Your task to perform on an android device: Look up the best rated wireless earbuds on Ali Express Image 0: 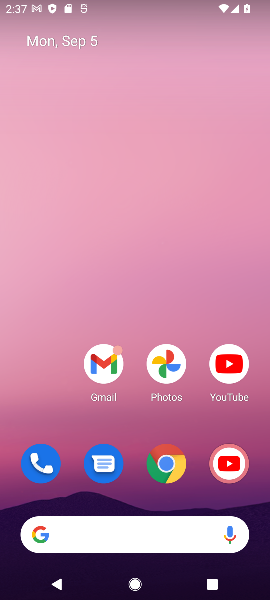
Step 0: drag from (135, 503) to (145, 209)
Your task to perform on an android device: Look up the best rated wireless earbuds on Ali Express Image 1: 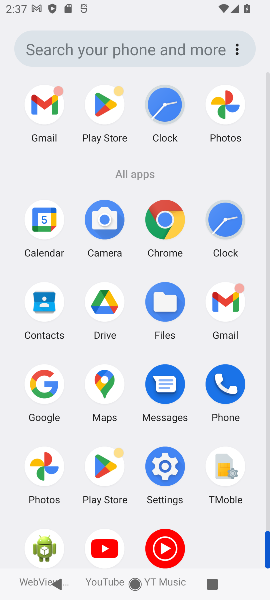
Step 1: drag from (32, 376) to (250, 336)
Your task to perform on an android device: Look up the best rated wireless earbuds on Ali Express Image 2: 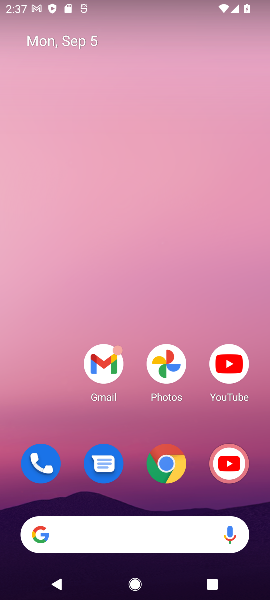
Step 2: drag from (187, 393) to (12, 371)
Your task to perform on an android device: Look up the best rated wireless earbuds on Ali Express Image 3: 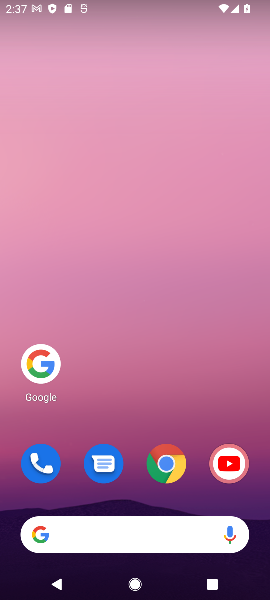
Step 3: click (43, 358)
Your task to perform on an android device: Look up the best rated wireless earbuds on Ali Express Image 4: 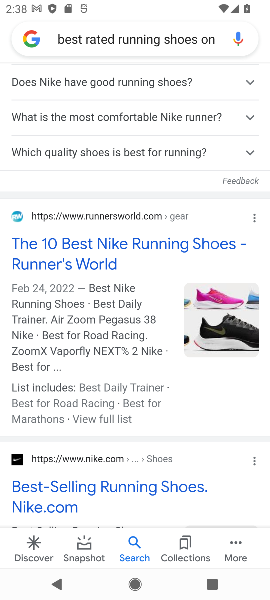
Step 4: click (212, 31)
Your task to perform on an android device: Look up the best rated wireless earbuds on Ali Express Image 5: 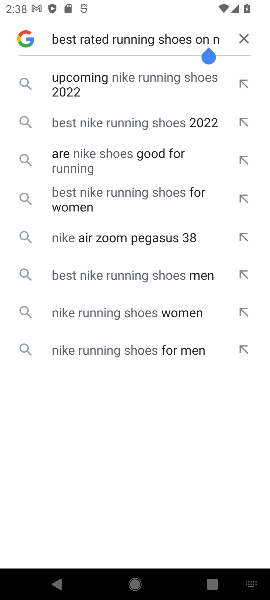
Step 5: click (242, 34)
Your task to perform on an android device: Look up the best rated wireless earbuds on Ali Express Image 6: 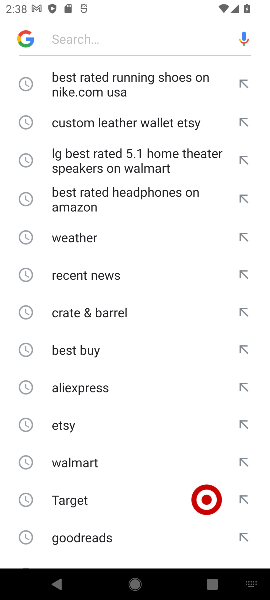
Step 6: click (53, 30)
Your task to perform on an android device: Look up the best rated wireless earbuds on Ali Express Image 7: 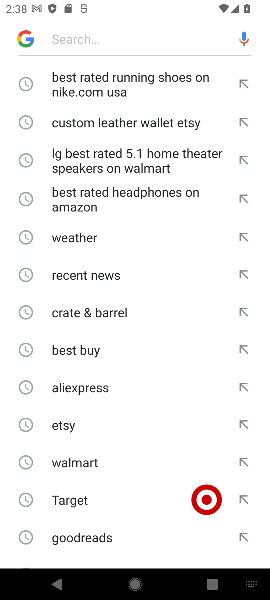
Step 7: type "the best rated wireless earbuds on Ali Express "
Your task to perform on an android device: Look up the best rated wireless earbuds on Ali Express Image 8: 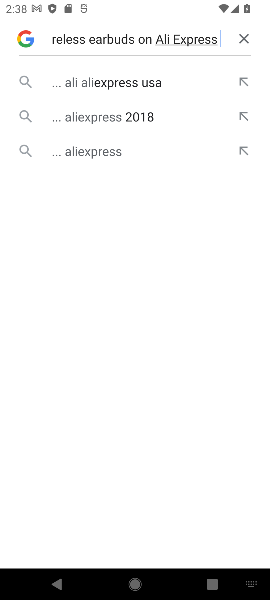
Step 8: click (133, 86)
Your task to perform on an android device: Look up the best rated wireless earbuds on Ali Express Image 9: 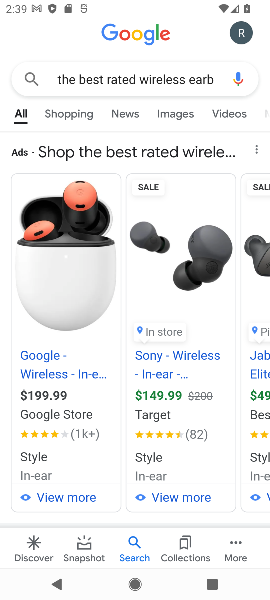
Step 9: drag from (139, 432) to (153, 161)
Your task to perform on an android device: Look up the best rated wireless earbuds on Ali Express Image 10: 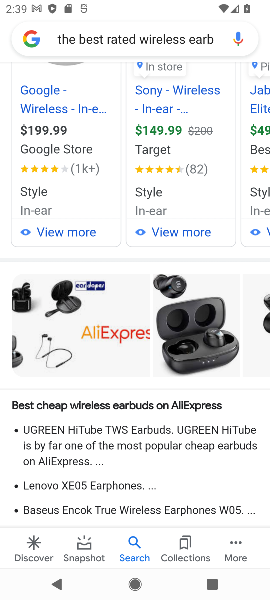
Step 10: drag from (105, 461) to (109, 289)
Your task to perform on an android device: Look up the best rated wireless earbuds on Ali Express Image 11: 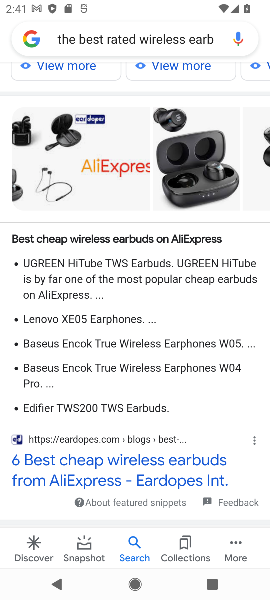
Step 11: click (163, 124)
Your task to perform on an android device: Look up the best rated wireless earbuds on Ali Express Image 12: 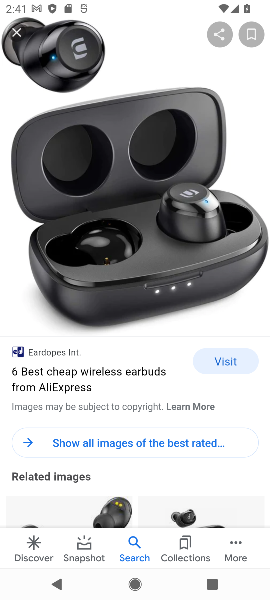
Step 12: task complete